Your task to perform on an android device: Open Maps and search for coffee Image 0: 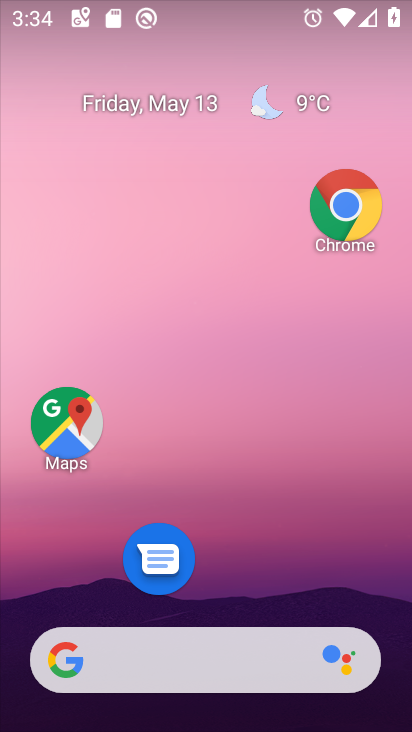
Step 0: click (56, 416)
Your task to perform on an android device: Open Maps and search for coffee Image 1: 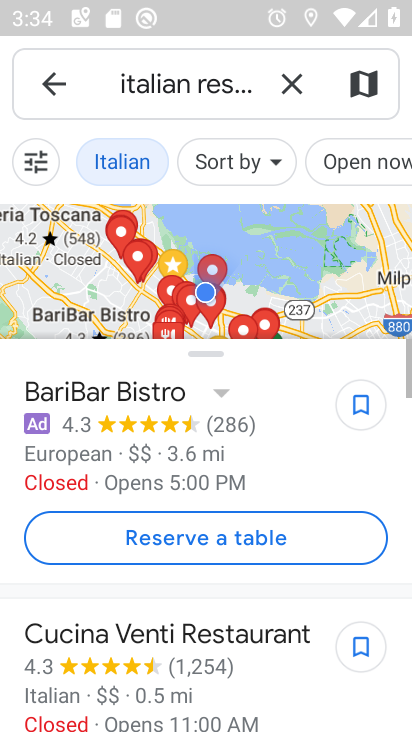
Step 1: click (292, 82)
Your task to perform on an android device: Open Maps and search for coffee Image 2: 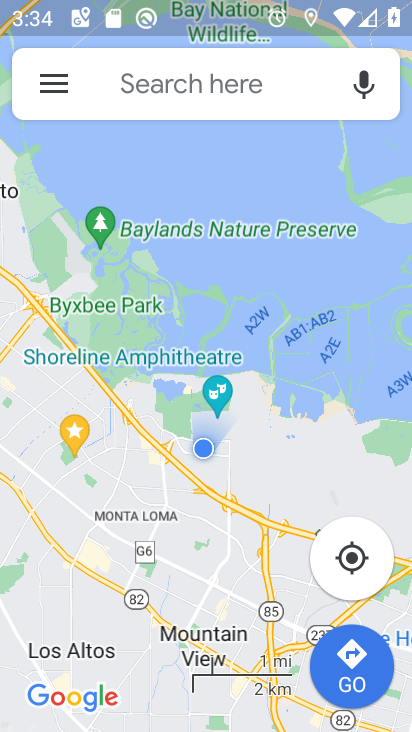
Step 2: click (204, 89)
Your task to perform on an android device: Open Maps and search for coffee Image 3: 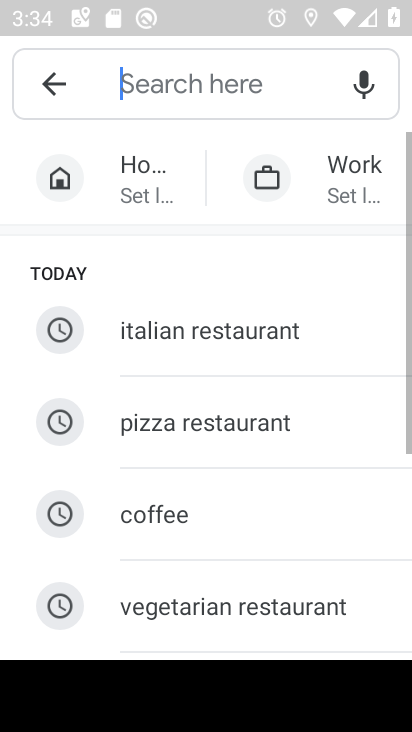
Step 3: click (158, 526)
Your task to perform on an android device: Open Maps and search for coffee Image 4: 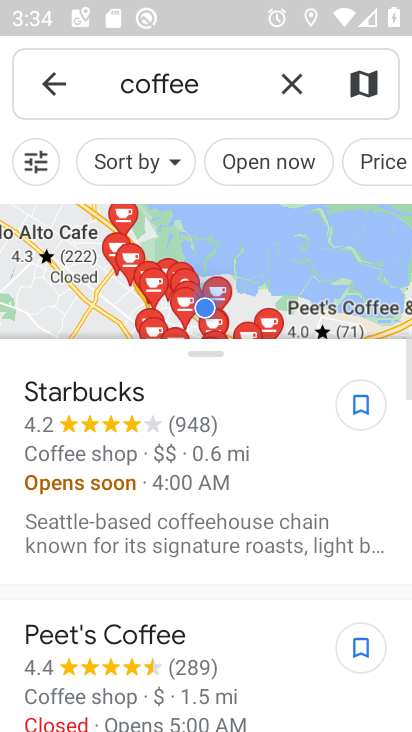
Step 4: task complete